Your task to perform on an android device: toggle notifications settings in the gmail app Image 0: 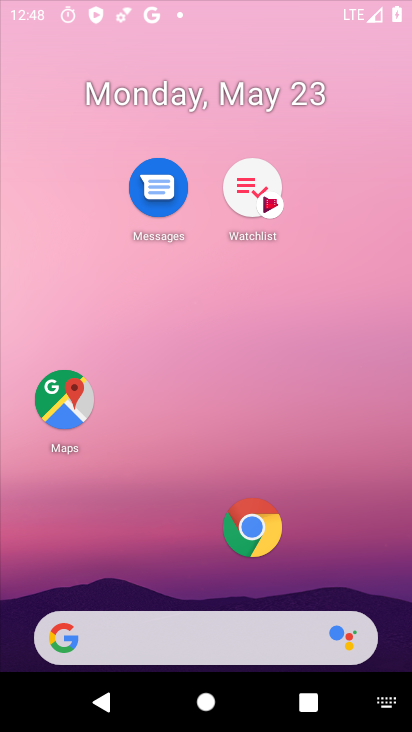
Step 0: click (305, 337)
Your task to perform on an android device: toggle notifications settings in the gmail app Image 1: 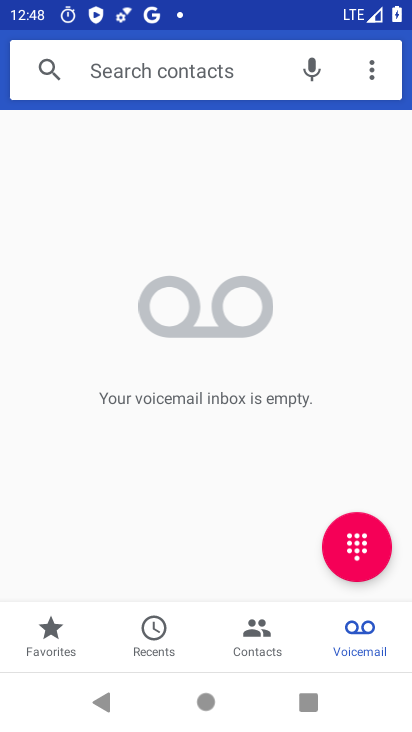
Step 1: drag from (278, 609) to (300, 341)
Your task to perform on an android device: toggle notifications settings in the gmail app Image 2: 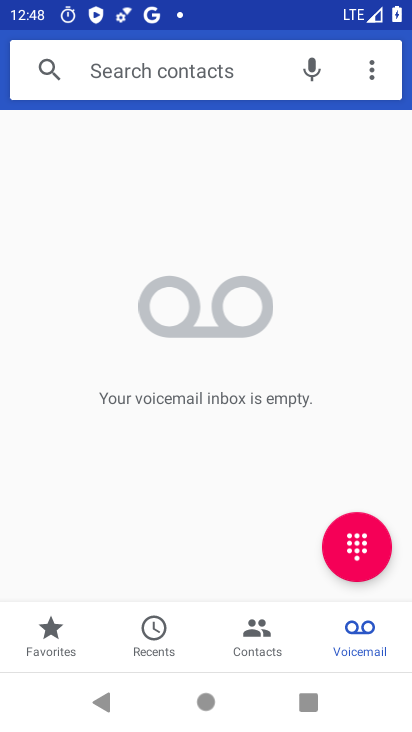
Step 2: press back button
Your task to perform on an android device: toggle notifications settings in the gmail app Image 3: 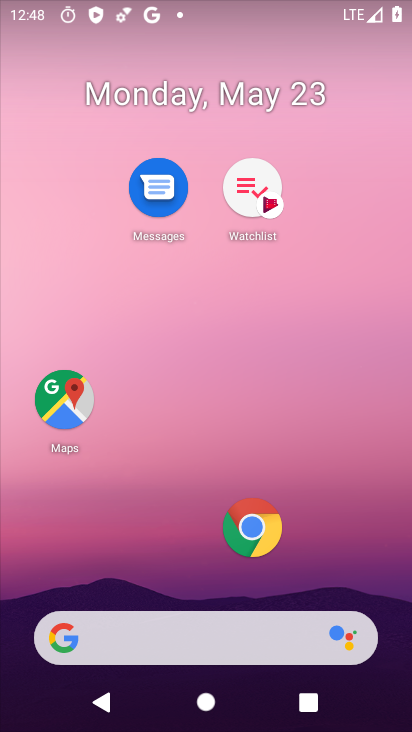
Step 3: drag from (244, 598) to (250, 280)
Your task to perform on an android device: toggle notifications settings in the gmail app Image 4: 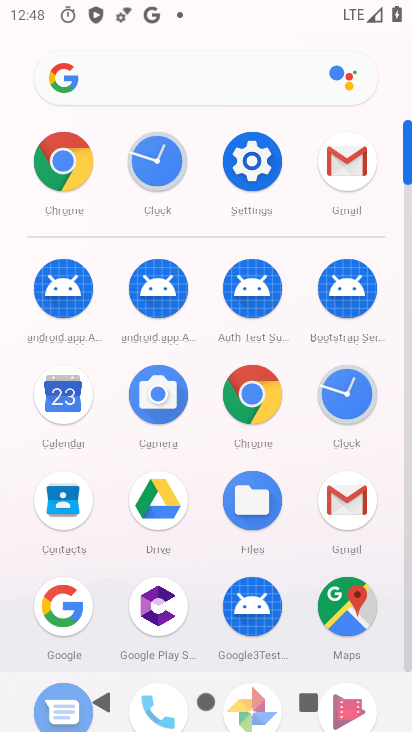
Step 4: click (342, 497)
Your task to perform on an android device: toggle notifications settings in the gmail app Image 5: 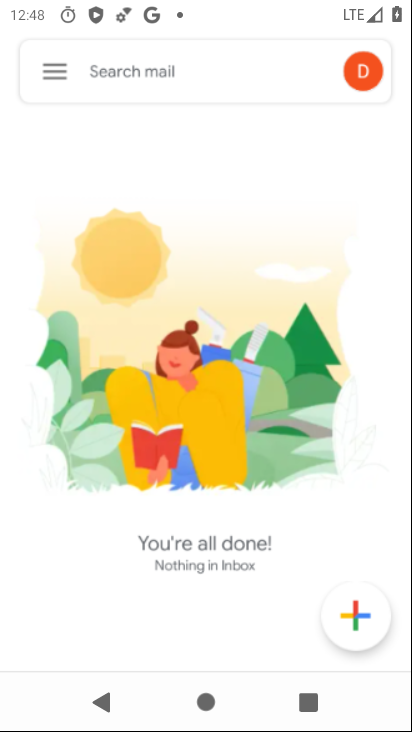
Step 5: click (342, 497)
Your task to perform on an android device: toggle notifications settings in the gmail app Image 6: 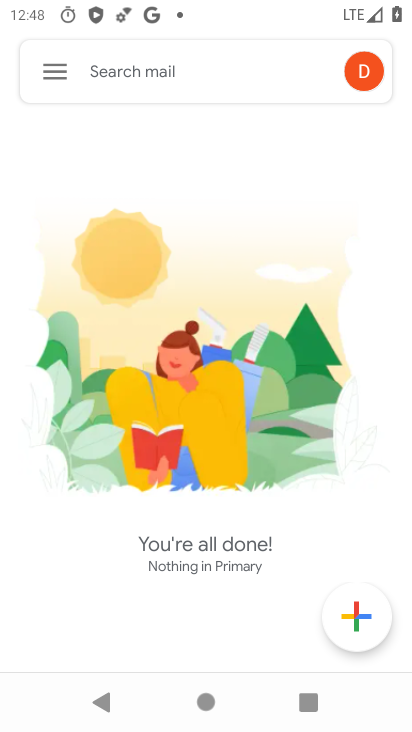
Step 6: click (52, 73)
Your task to perform on an android device: toggle notifications settings in the gmail app Image 7: 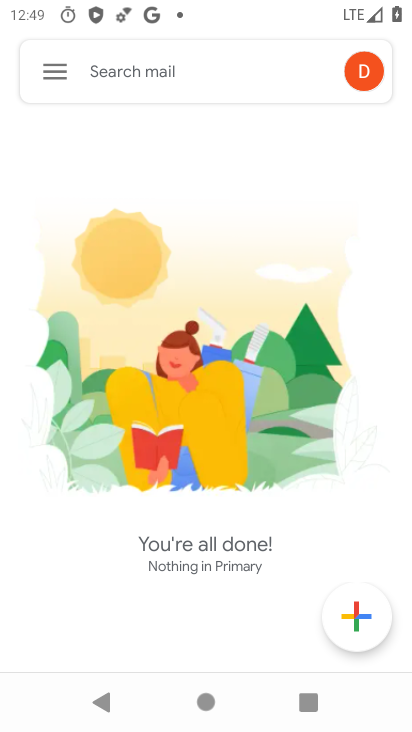
Step 7: click (65, 72)
Your task to perform on an android device: toggle notifications settings in the gmail app Image 8: 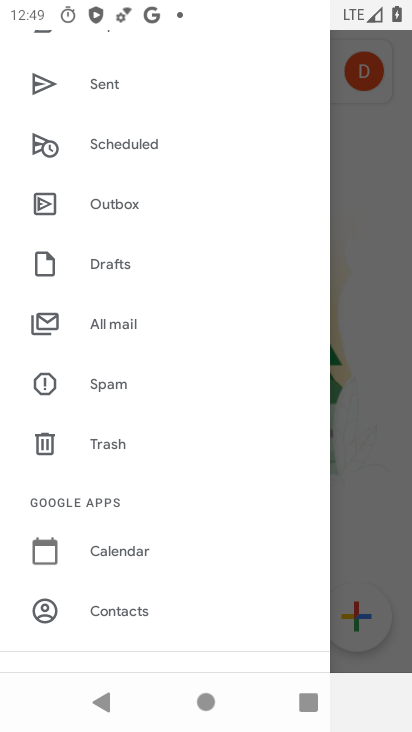
Step 8: drag from (121, 362) to (170, 113)
Your task to perform on an android device: toggle notifications settings in the gmail app Image 9: 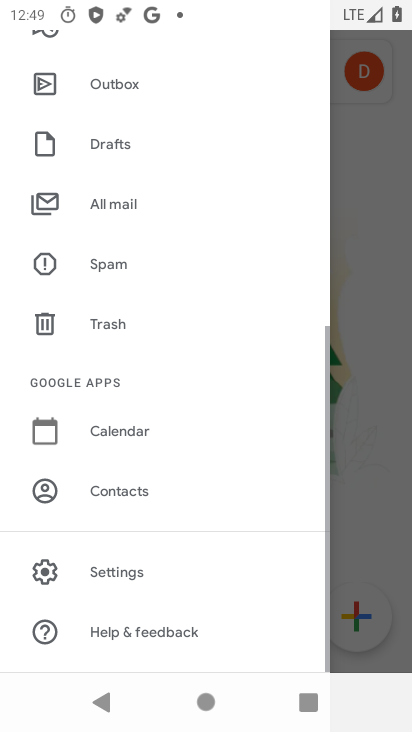
Step 9: drag from (153, 400) to (153, 185)
Your task to perform on an android device: toggle notifications settings in the gmail app Image 10: 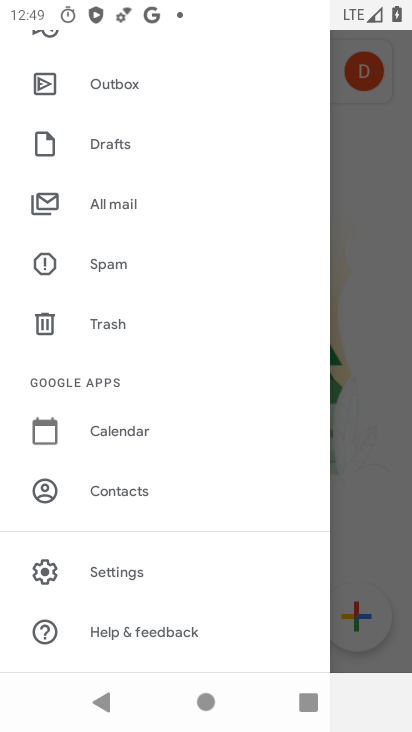
Step 10: click (110, 572)
Your task to perform on an android device: toggle notifications settings in the gmail app Image 11: 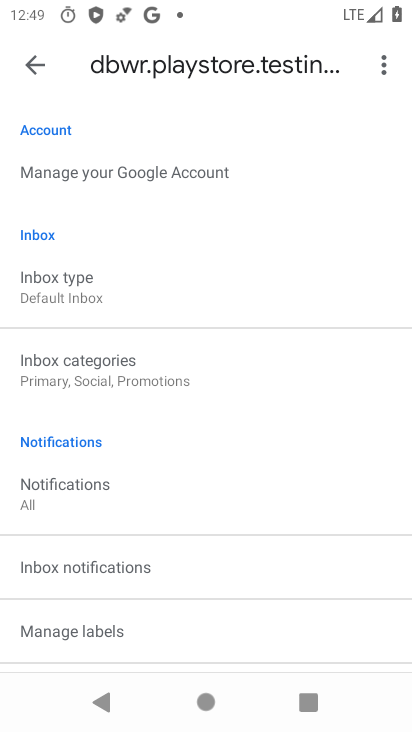
Step 11: drag from (115, 581) to (139, 323)
Your task to perform on an android device: toggle notifications settings in the gmail app Image 12: 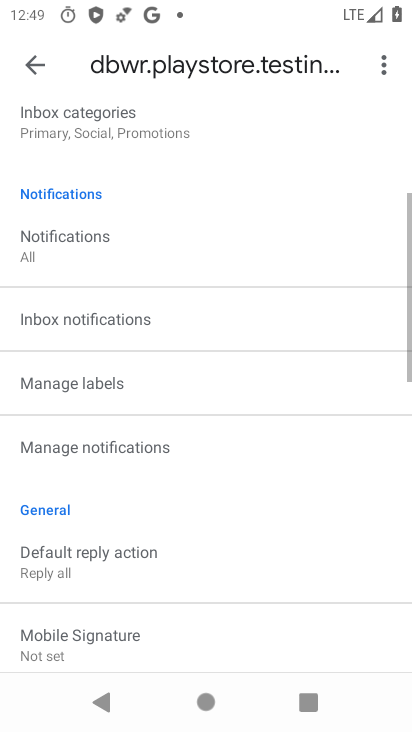
Step 12: drag from (170, 521) to (196, 284)
Your task to perform on an android device: toggle notifications settings in the gmail app Image 13: 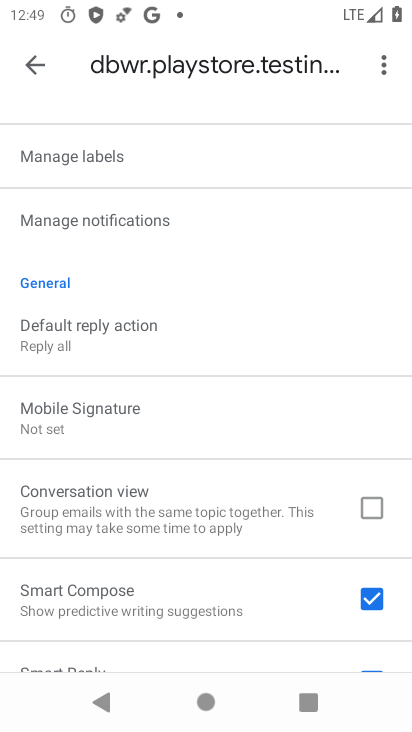
Step 13: drag from (105, 402) to (117, 332)
Your task to perform on an android device: toggle notifications settings in the gmail app Image 14: 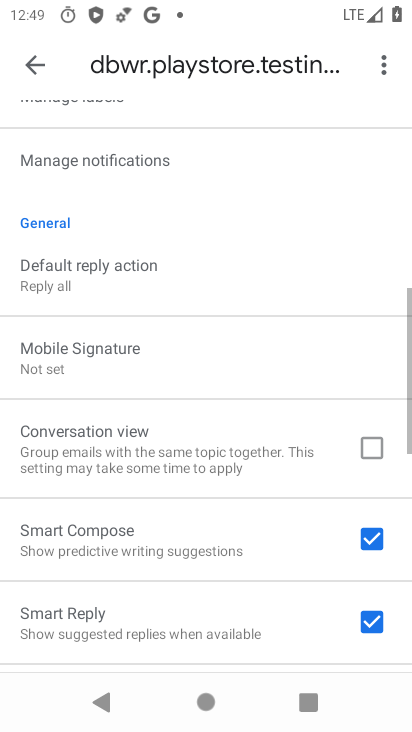
Step 14: drag from (124, 348) to (120, 290)
Your task to perform on an android device: toggle notifications settings in the gmail app Image 15: 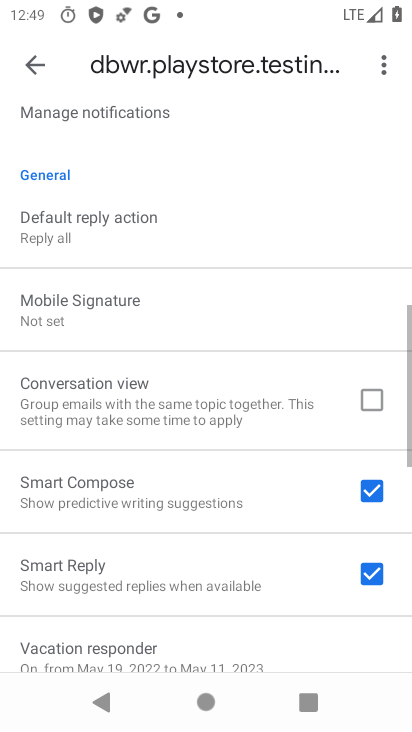
Step 15: drag from (102, 359) to (102, 297)
Your task to perform on an android device: toggle notifications settings in the gmail app Image 16: 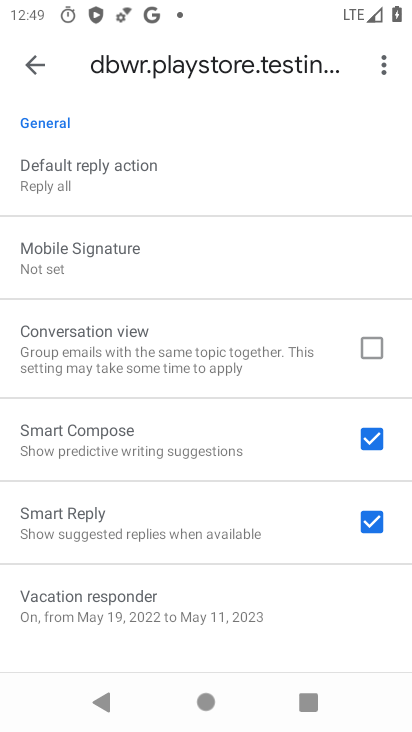
Step 16: drag from (82, 513) to (58, 344)
Your task to perform on an android device: toggle notifications settings in the gmail app Image 17: 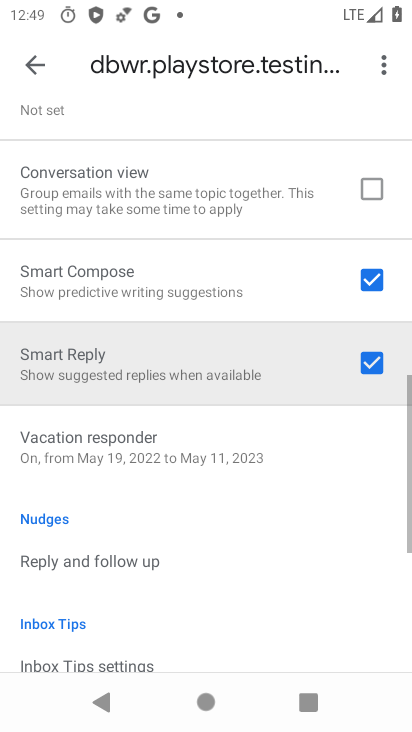
Step 17: drag from (91, 499) to (109, 330)
Your task to perform on an android device: toggle notifications settings in the gmail app Image 18: 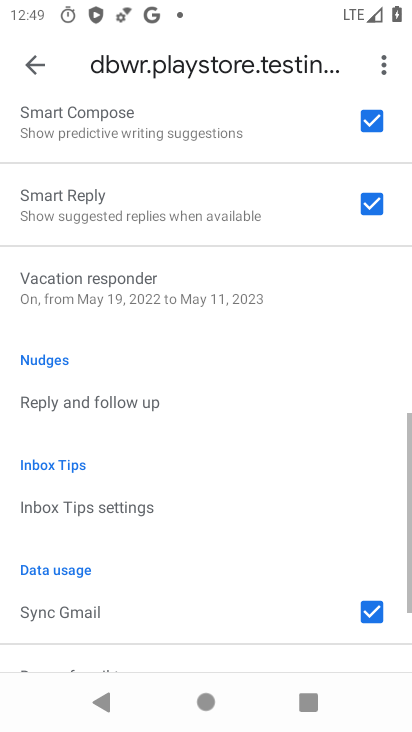
Step 18: drag from (116, 488) to (129, 360)
Your task to perform on an android device: toggle notifications settings in the gmail app Image 19: 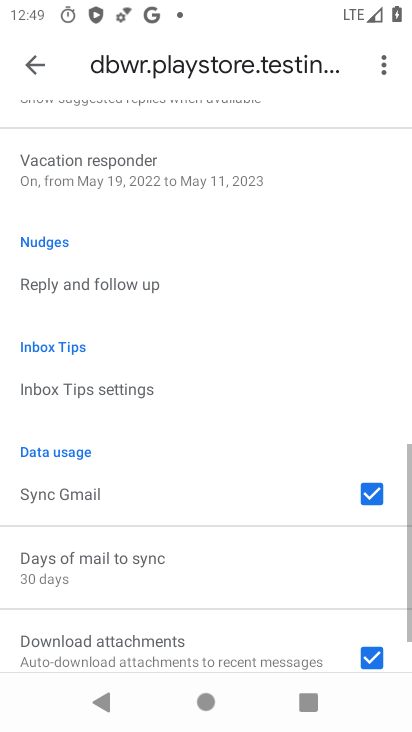
Step 19: drag from (129, 307) to (134, 461)
Your task to perform on an android device: toggle notifications settings in the gmail app Image 20: 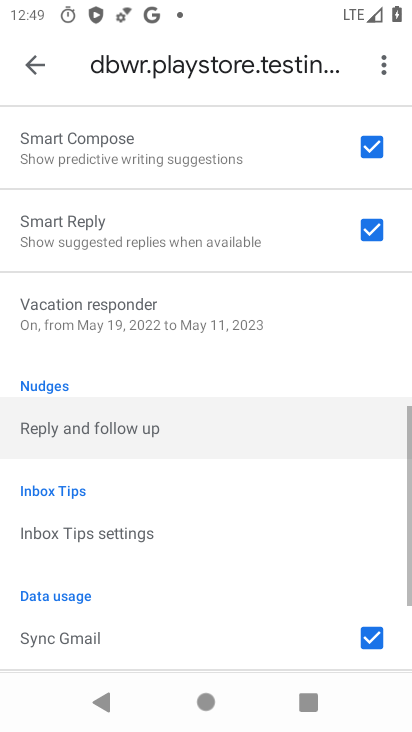
Step 20: drag from (114, 352) to (108, 443)
Your task to perform on an android device: toggle notifications settings in the gmail app Image 21: 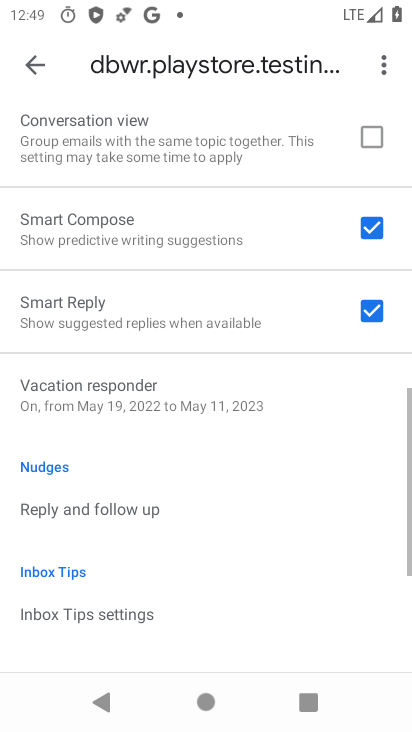
Step 21: drag from (175, 320) to (157, 476)
Your task to perform on an android device: toggle notifications settings in the gmail app Image 22: 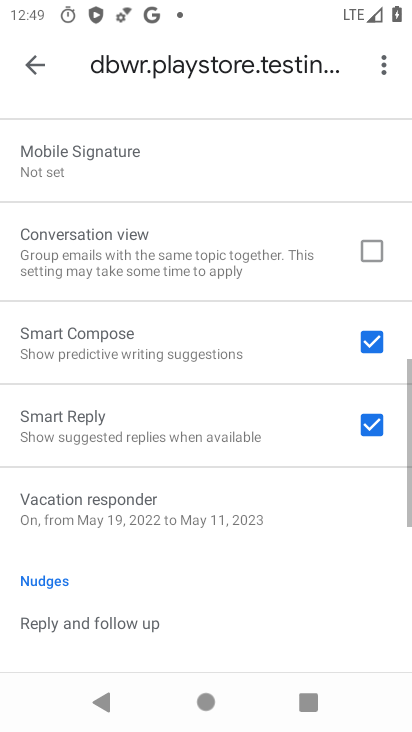
Step 22: drag from (179, 415) to (92, 438)
Your task to perform on an android device: toggle notifications settings in the gmail app Image 23: 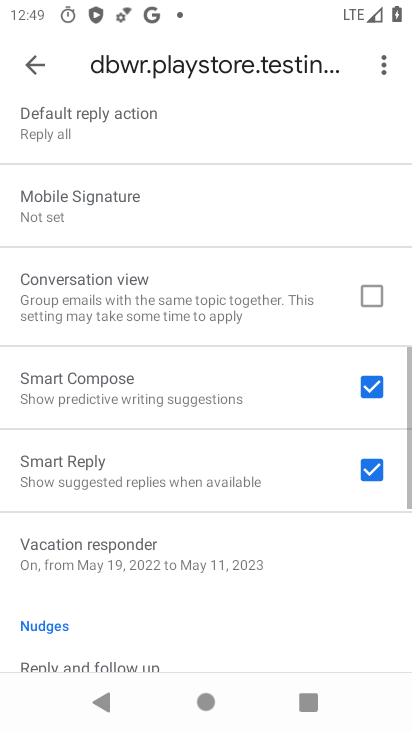
Step 23: drag from (97, 269) to (65, 433)
Your task to perform on an android device: toggle notifications settings in the gmail app Image 24: 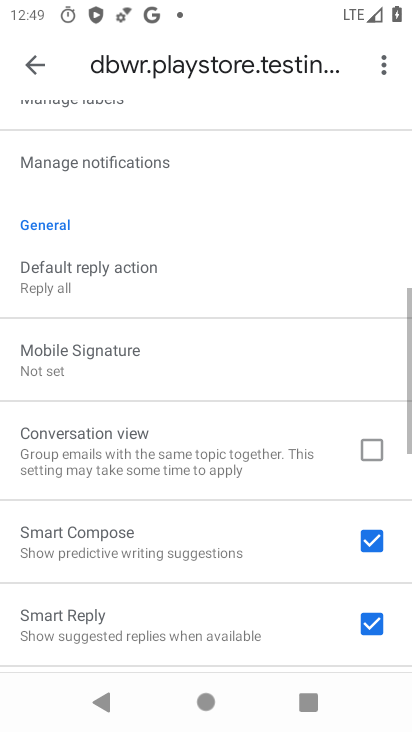
Step 24: drag from (124, 245) to (77, 532)
Your task to perform on an android device: toggle notifications settings in the gmail app Image 25: 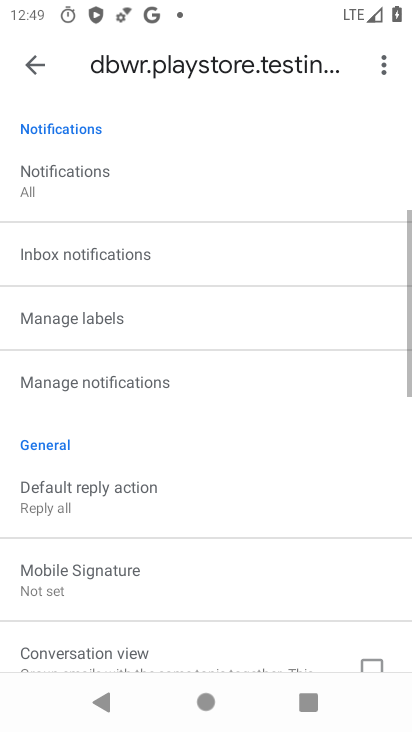
Step 25: click (78, 519)
Your task to perform on an android device: toggle notifications settings in the gmail app Image 26: 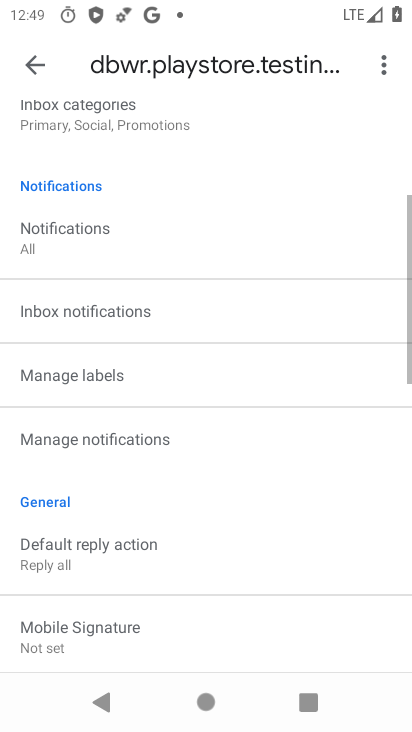
Step 26: drag from (117, 346) to (117, 501)
Your task to perform on an android device: toggle notifications settings in the gmail app Image 27: 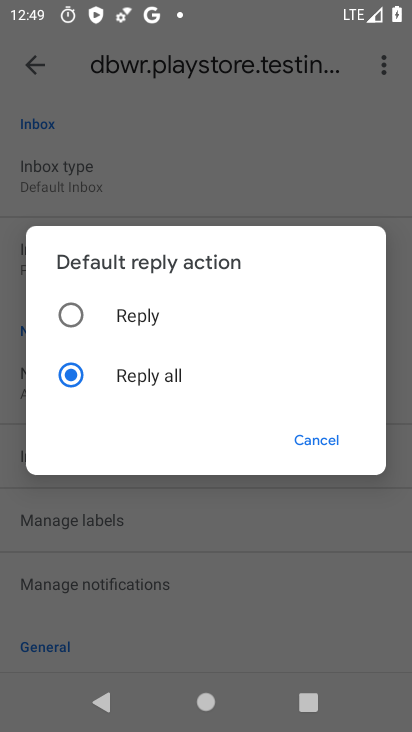
Step 27: click (320, 430)
Your task to perform on an android device: toggle notifications settings in the gmail app Image 28: 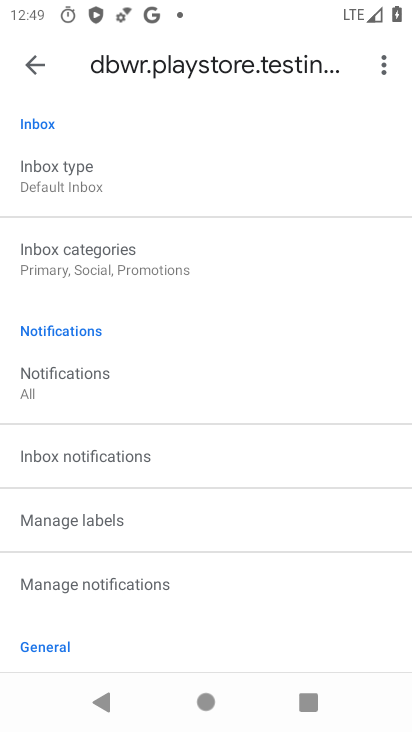
Step 28: drag from (69, 309) to (37, 480)
Your task to perform on an android device: toggle notifications settings in the gmail app Image 29: 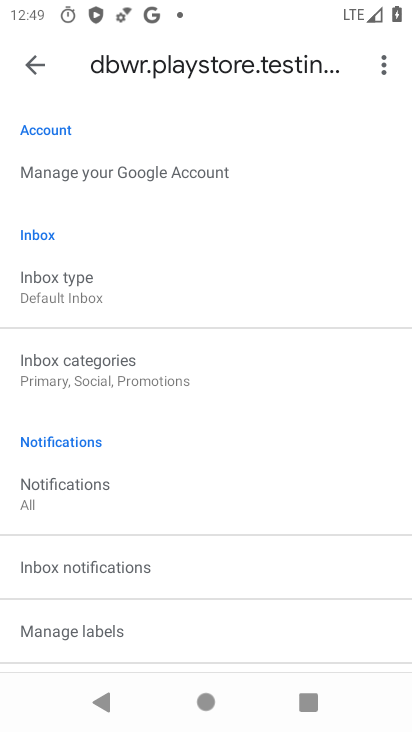
Step 29: click (56, 473)
Your task to perform on an android device: toggle notifications settings in the gmail app Image 30: 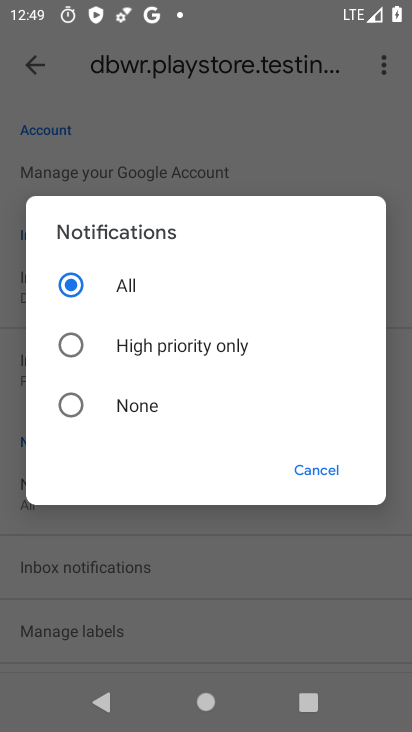
Step 30: click (60, 343)
Your task to perform on an android device: toggle notifications settings in the gmail app Image 31: 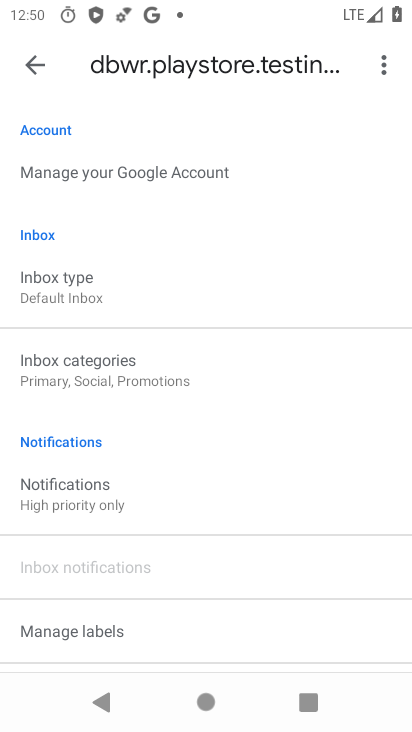
Step 31: task complete